Your task to perform on an android device: Open eBay Image 0: 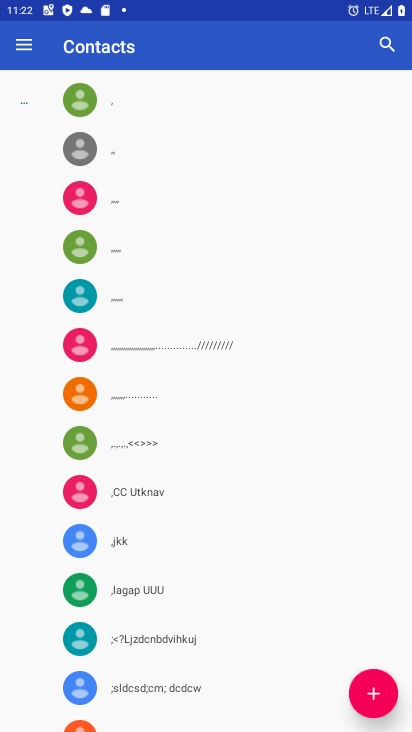
Step 0: press home button
Your task to perform on an android device: Open eBay Image 1: 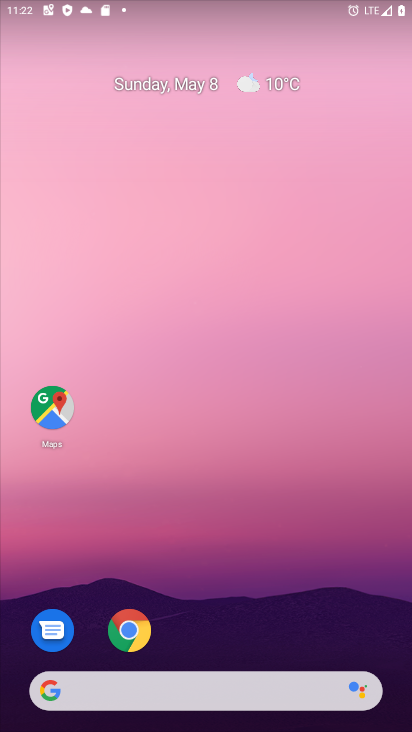
Step 1: drag from (385, 633) to (267, 40)
Your task to perform on an android device: Open eBay Image 2: 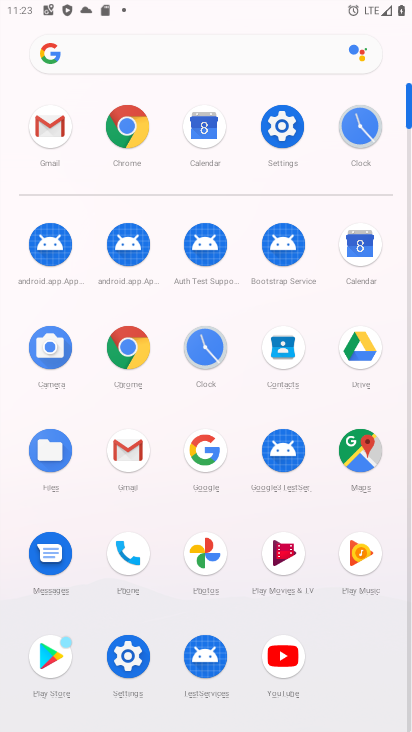
Step 2: click (125, 140)
Your task to perform on an android device: Open eBay Image 3: 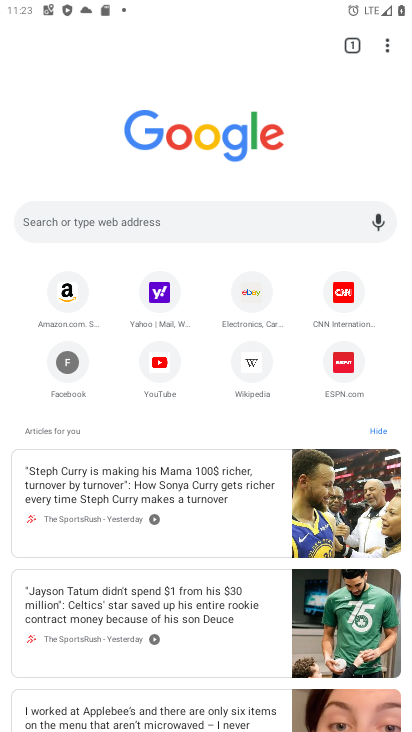
Step 3: click (245, 308)
Your task to perform on an android device: Open eBay Image 4: 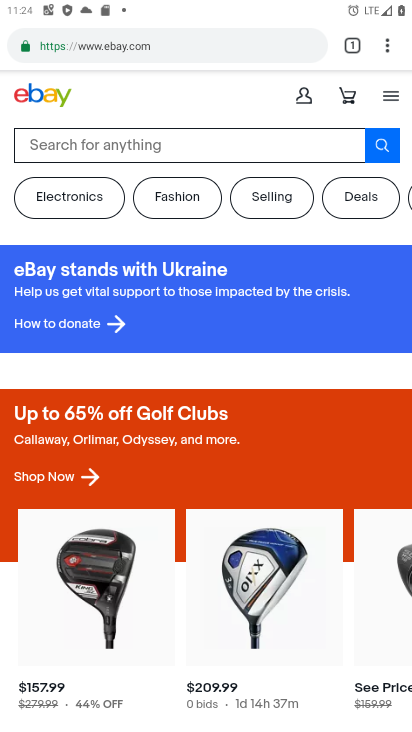
Step 4: task complete